Your task to perform on an android device: Open calendar and show me the first week of next month Image 0: 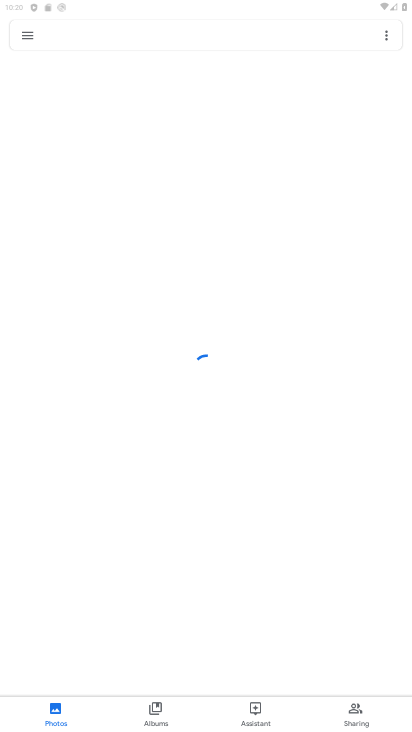
Step 0: press home button
Your task to perform on an android device: Open calendar and show me the first week of next month Image 1: 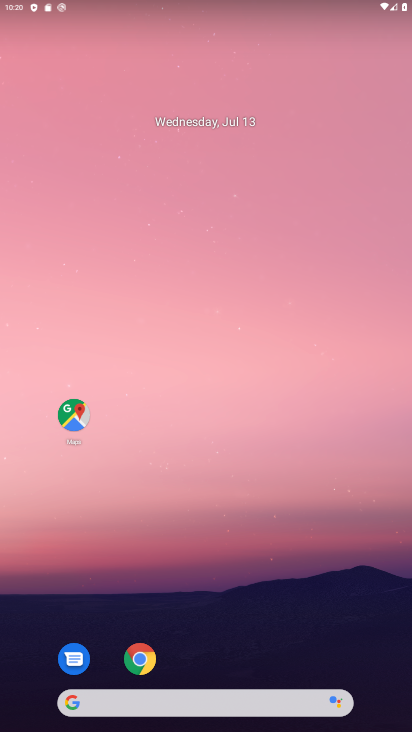
Step 1: drag from (352, 662) to (297, 231)
Your task to perform on an android device: Open calendar and show me the first week of next month Image 2: 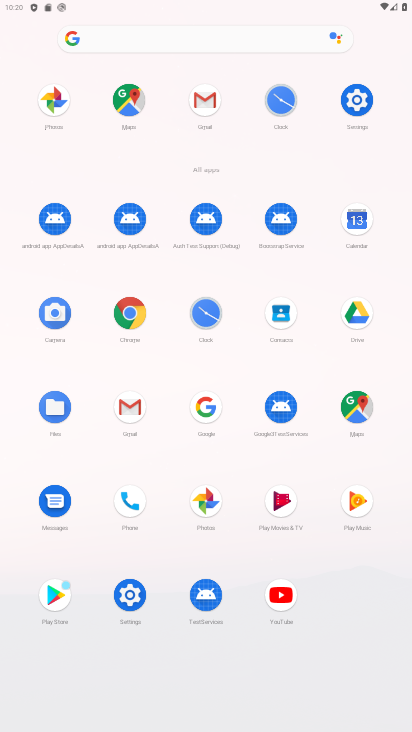
Step 2: click (362, 226)
Your task to perform on an android device: Open calendar and show me the first week of next month Image 3: 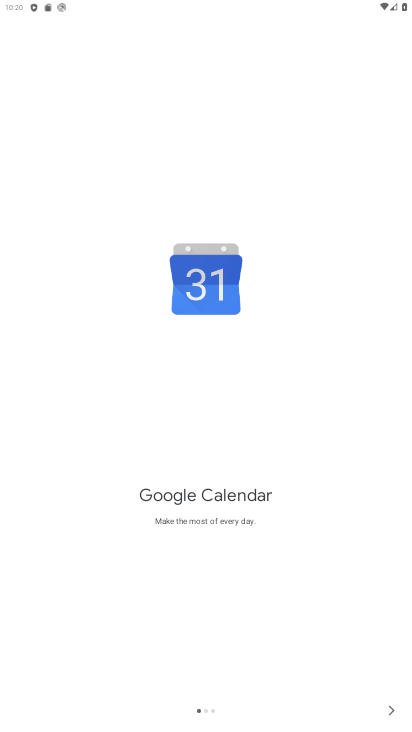
Step 3: click (387, 708)
Your task to perform on an android device: Open calendar and show me the first week of next month Image 4: 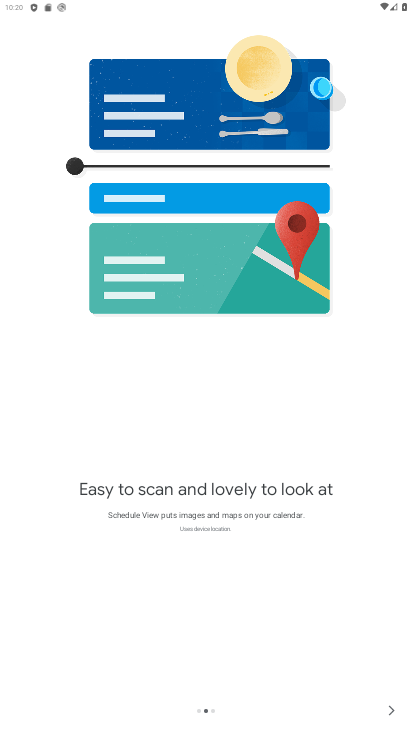
Step 4: click (395, 710)
Your task to perform on an android device: Open calendar and show me the first week of next month Image 5: 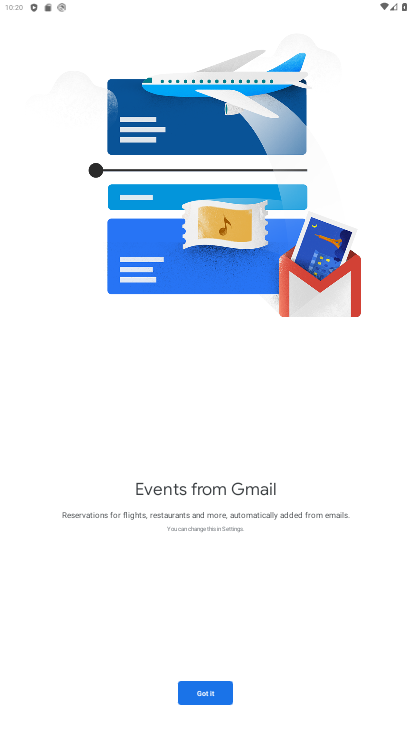
Step 5: click (211, 696)
Your task to perform on an android device: Open calendar and show me the first week of next month Image 6: 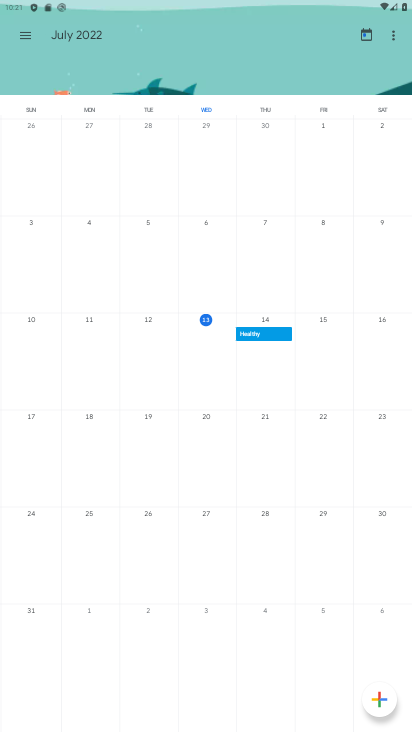
Step 6: click (25, 34)
Your task to perform on an android device: Open calendar and show me the first week of next month Image 7: 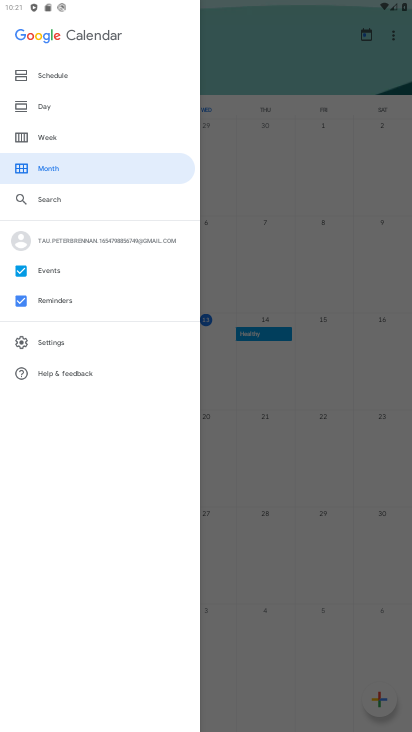
Step 7: click (49, 134)
Your task to perform on an android device: Open calendar and show me the first week of next month Image 8: 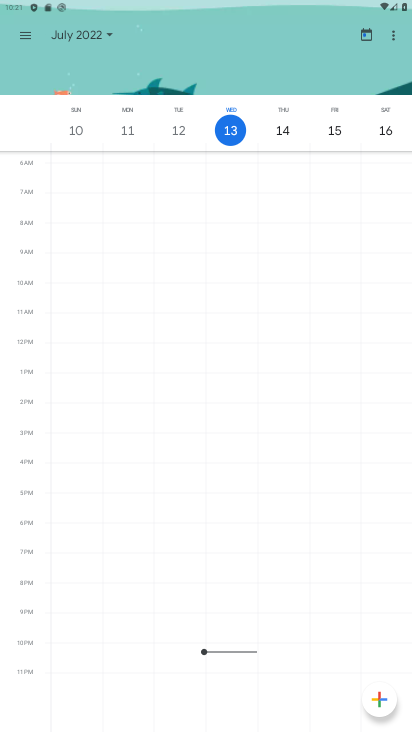
Step 8: click (108, 36)
Your task to perform on an android device: Open calendar and show me the first week of next month Image 9: 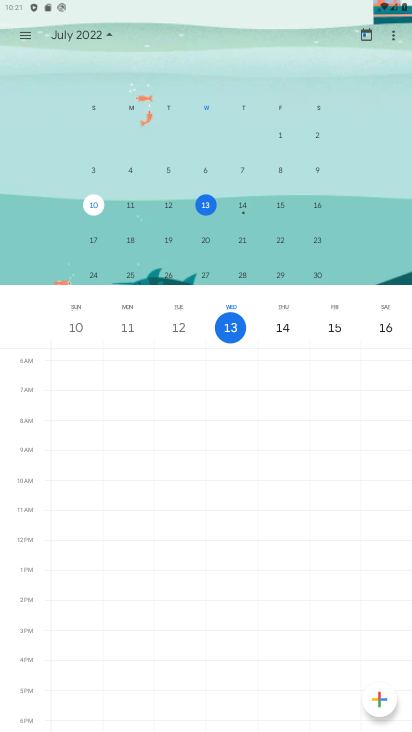
Step 9: drag from (316, 214) to (47, 196)
Your task to perform on an android device: Open calendar and show me the first week of next month Image 10: 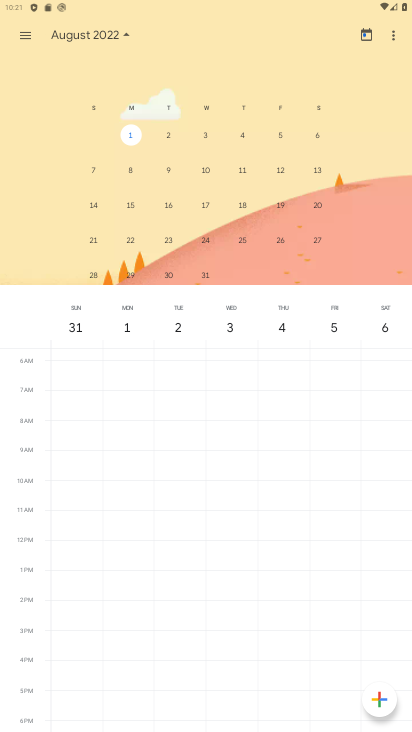
Step 10: click (87, 166)
Your task to perform on an android device: Open calendar and show me the first week of next month Image 11: 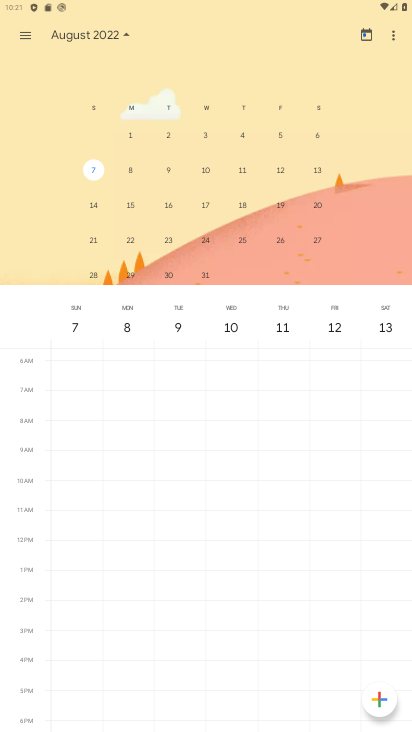
Step 11: task complete